Your task to perform on an android device: turn on the 12-hour format for clock Image 0: 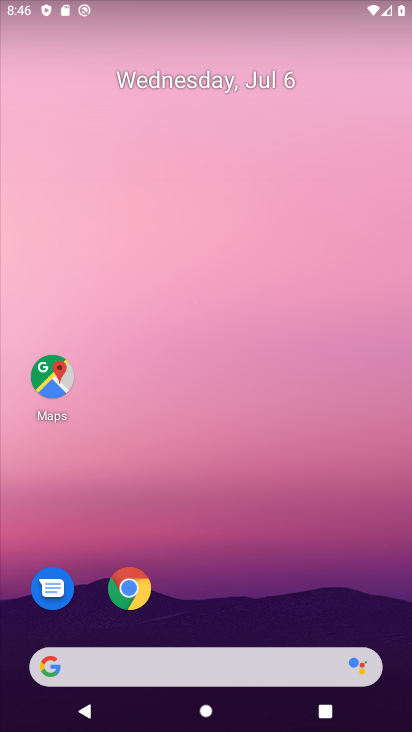
Step 0: drag from (156, 625) to (335, 64)
Your task to perform on an android device: turn on the 12-hour format for clock Image 1: 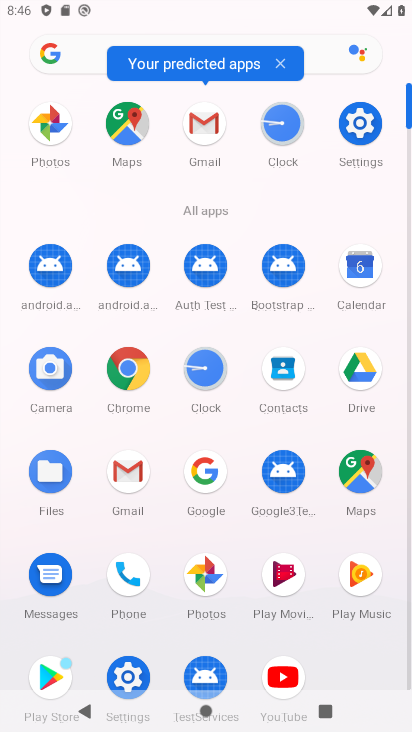
Step 1: click (367, 126)
Your task to perform on an android device: turn on the 12-hour format for clock Image 2: 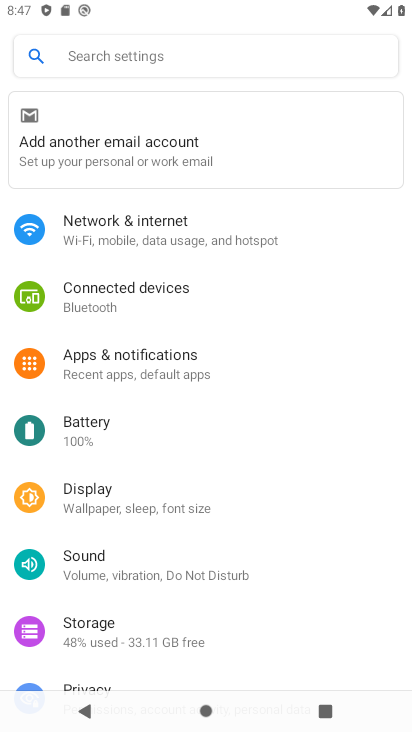
Step 2: press home button
Your task to perform on an android device: turn on the 12-hour format for clock Image 3: 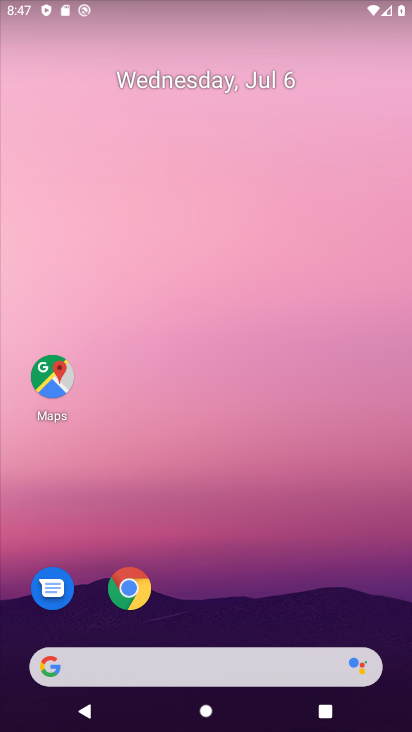
Step 3: drag from (159, 669) to (344, 90)
Your task to perform on an android device: turn on the 12-hour format for clock Image 4: 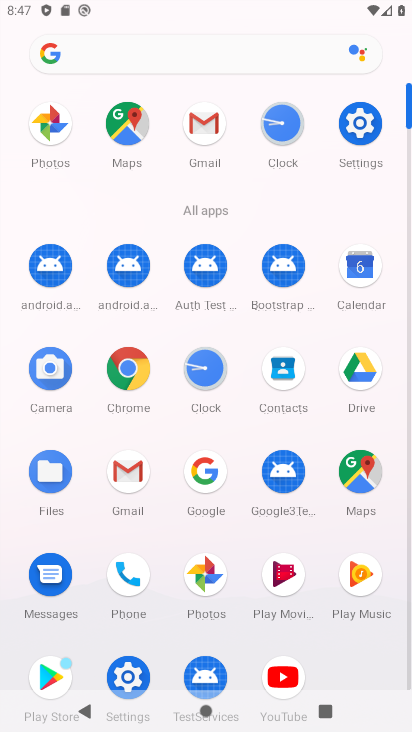
Step 4: click (206, 376)
Your task to perform on an android device: turn on the 12-hour format for clock Image 5: 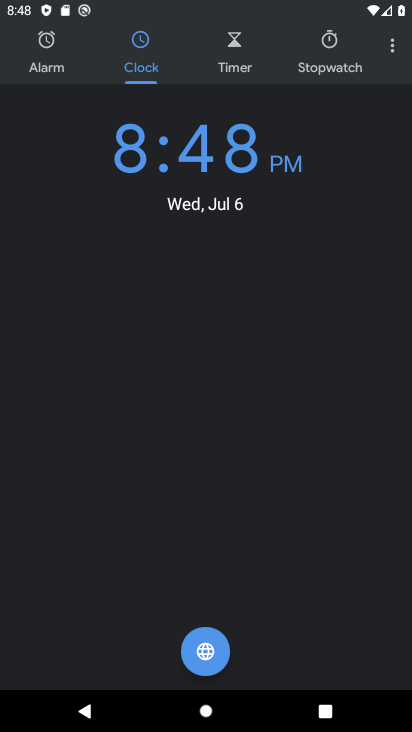
Step 5: click (395, 56)
Your task to perform on an android device: turn on the 12-hour format for clock Image 6: 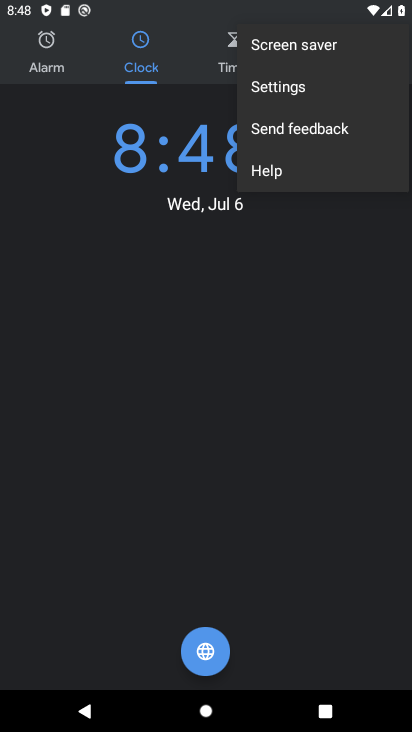
Step 6: click (288, 89)
Your task to perform on an android device: turn on the 12-hour format for clock Image 7: 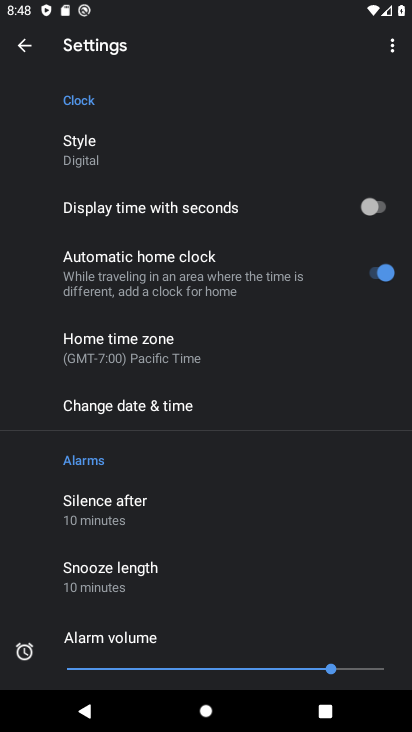
Step 7: click (162, 407)
Your task to perform on an android device: turn on the 12-hour format for clock Image 8: 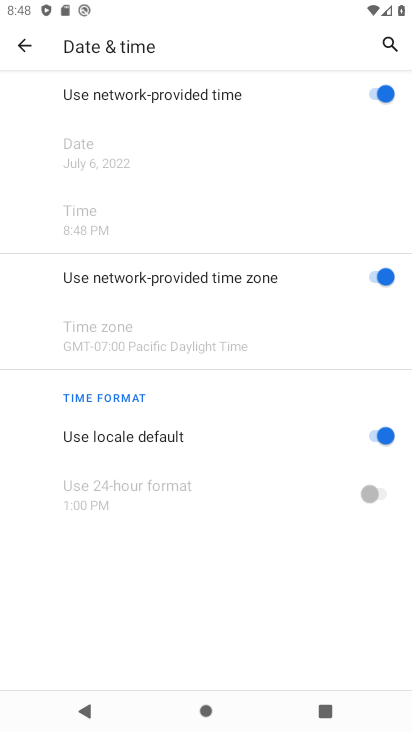
Step 8: task complete